Your task to perform on an android device: Play the last video I watched on Youtube Image 0: 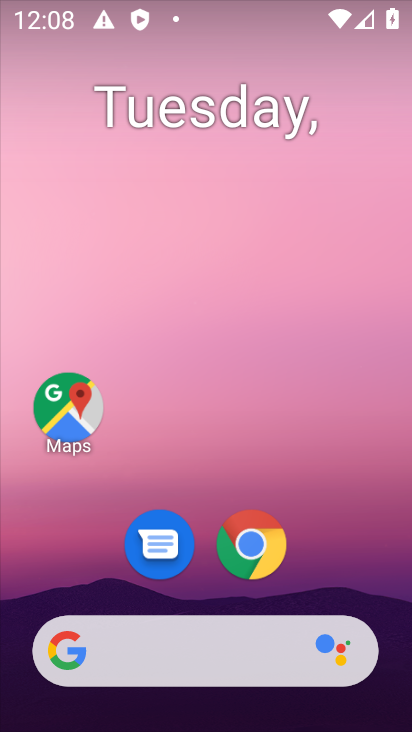
Step 0: drag from (328, 495) to (306, 61)
Your task to perform on an android device: Play the last video I watched on Youtube Image 1: 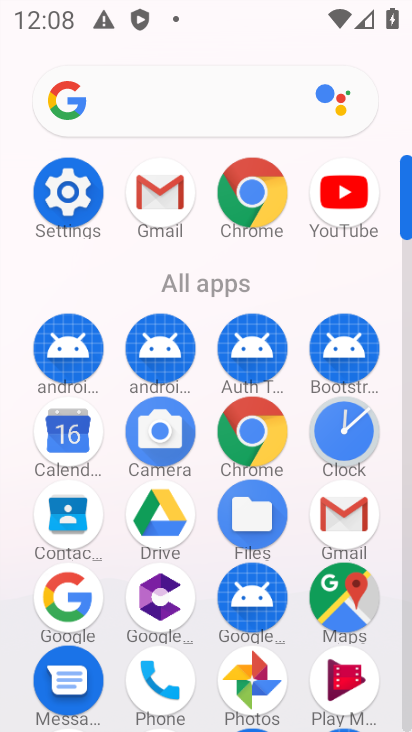
Step 1: click (255, 427)
Your task to perform on an android device: Play the last video I watched on Youtube Image 2: 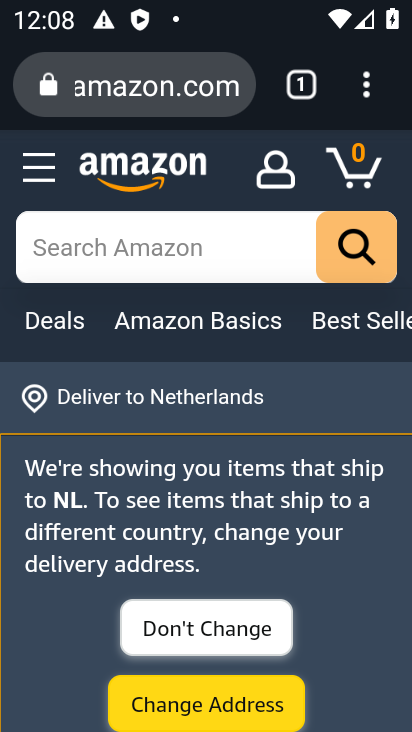
Step 2: press home button
Your task to perform on an android device: Play the last video I watched on Youtube Image 3: 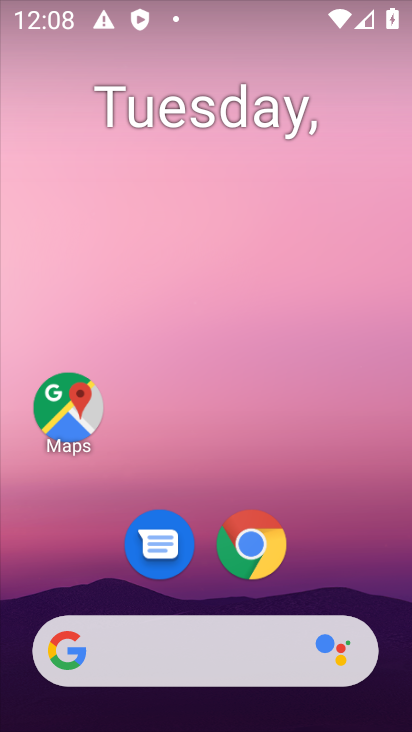
Step 3: drag from (330, 571) to (316, 0)
Your task to perform on an android device: Play the last video I watched on Youtube Image 4: 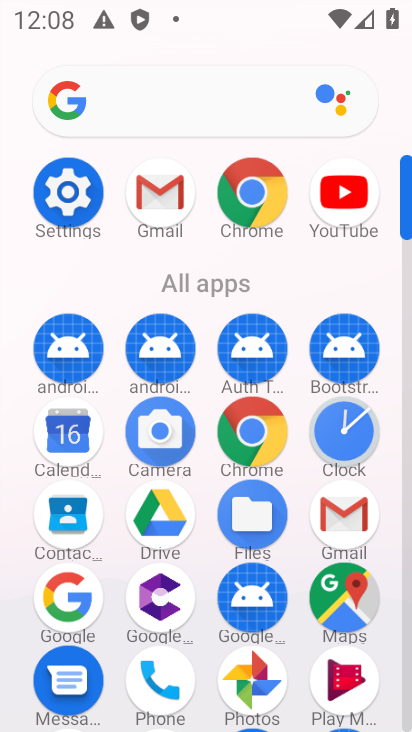
Step 4: click (331, 203)
Your task to perform on an android device: Play the last video I watched on Youtube Image 5: 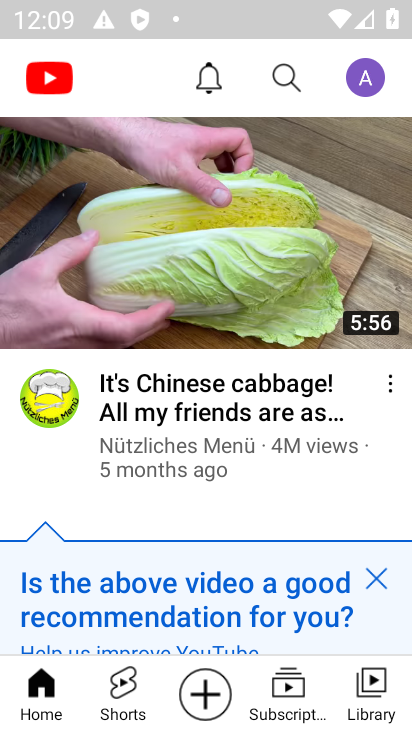
Step 5: click (373, 570)
Your task to perform on an android device: Play the last video I watched on Youtube Image 6: 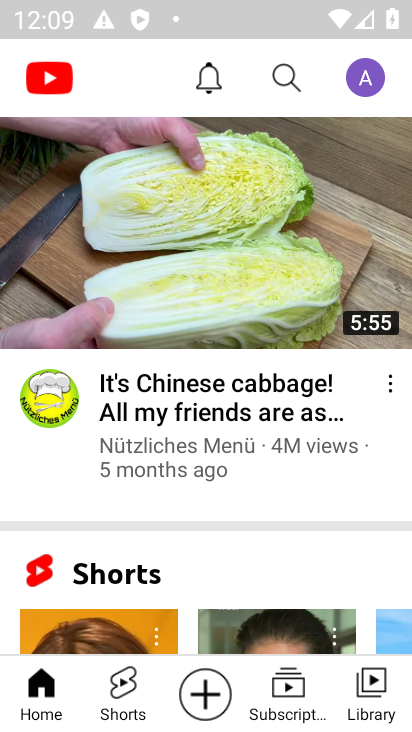
Step 6: click (379, 695)
Your task to perform on an android device: Play the last video I watched on Youtube Image 7: 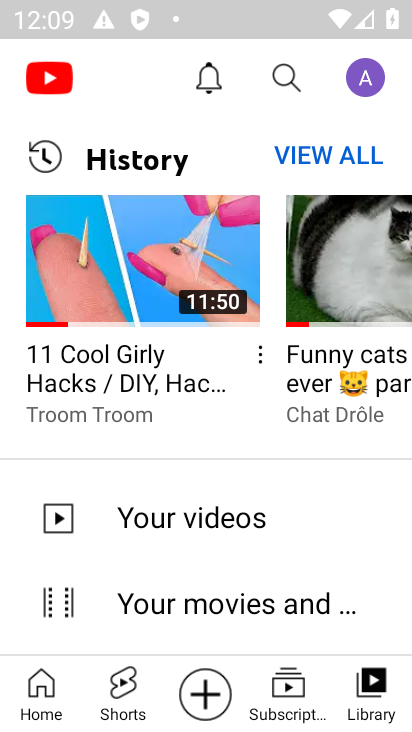
Step 7: click (110, 265)
Your task to perform on an android device: Play the last video I watched on Youtube Image 8: 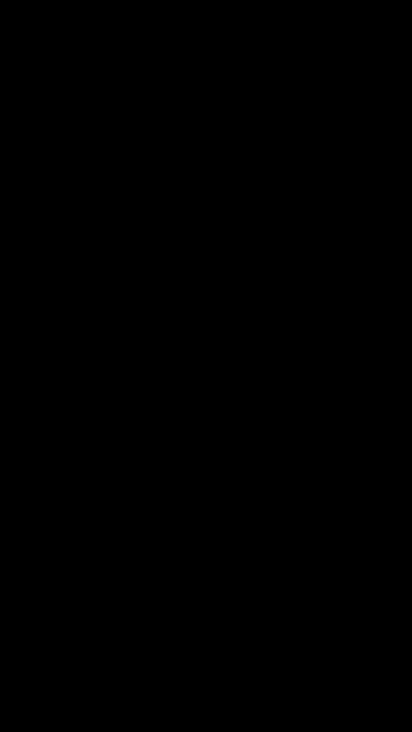
Step 8: task complete